Your task to perform on an android device: Turn off the flashlight Image 0: 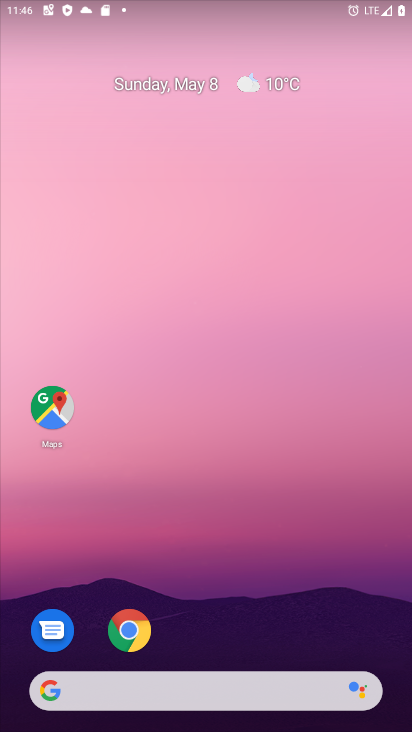
Step 0: drag from (374, 621) to (220, 32)
Your task to perform on an android device: Turn off the flashlight Image 1: 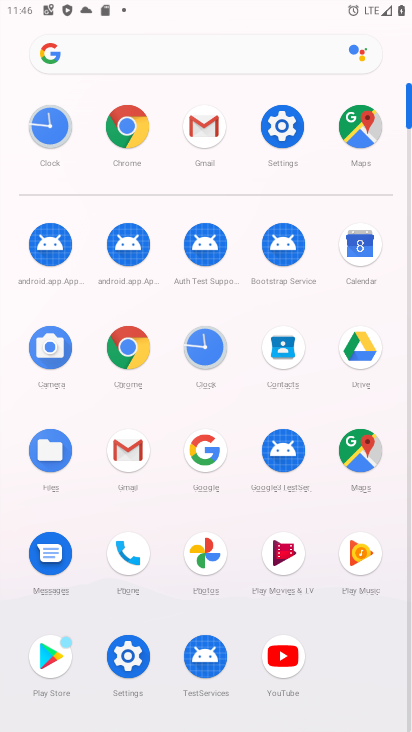
Step 1: click (278, 147)
Your task to perform on an android device: Turn off the flashlight Image 2: 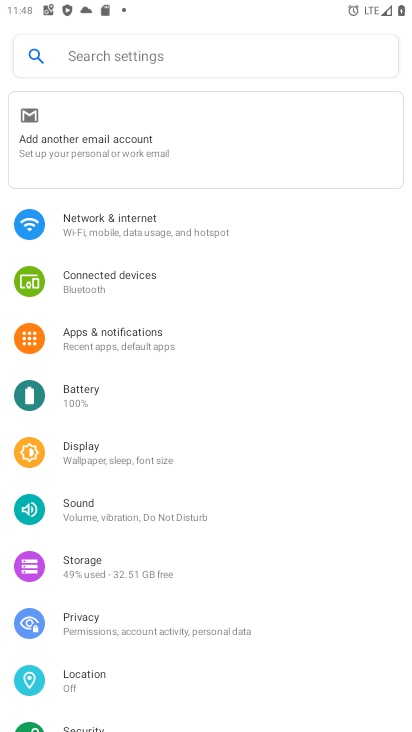
Step 2: task complete